Your task to perform on an android device: What's the weather today? Image 0: 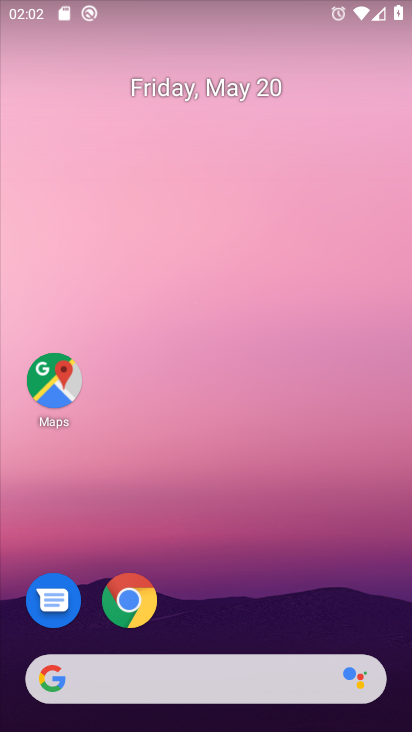
Step 0: click (216, 666)
Your task to perform on an android device: What's the weather today? Image 1: 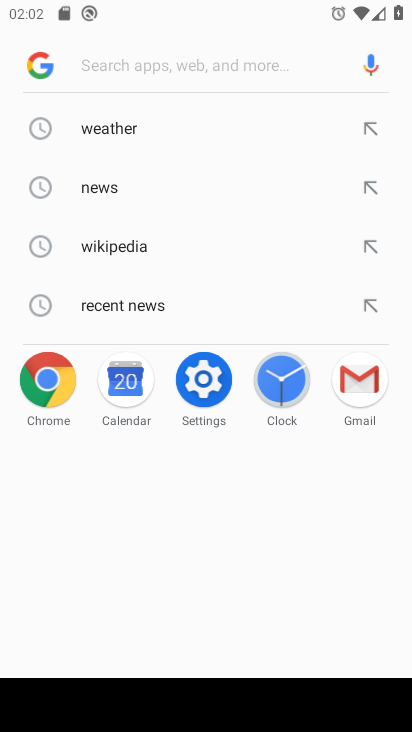
Step 1: click (136, 125)
Your task to perform on an android device: What's the weather today? Image 2: 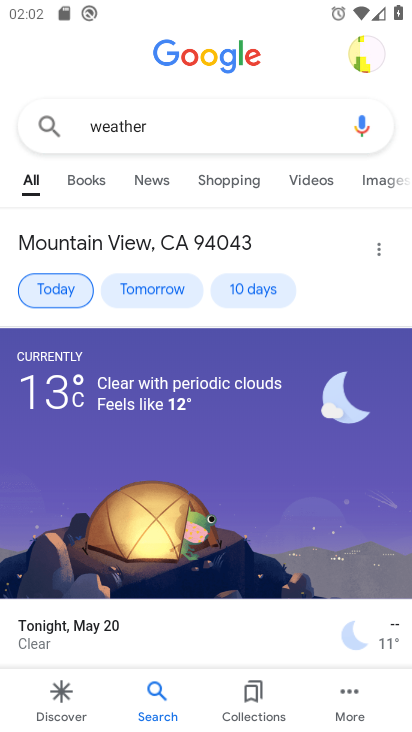
Step 2: task complete